Your task to perform on an android device: check storage Image 0: 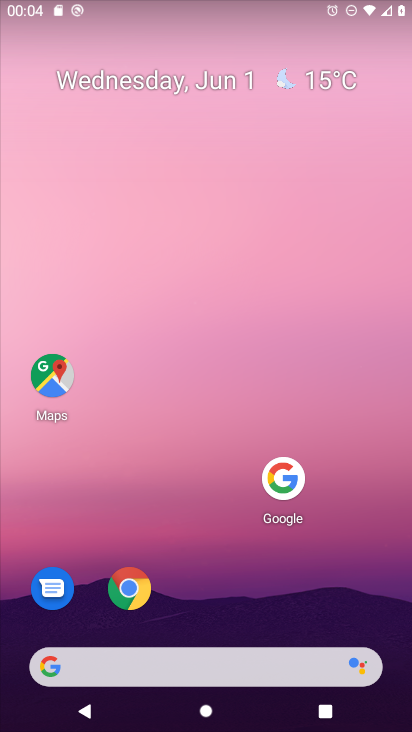
Step 0: press home button
Your task to perform on an android device: check storage Image 1: 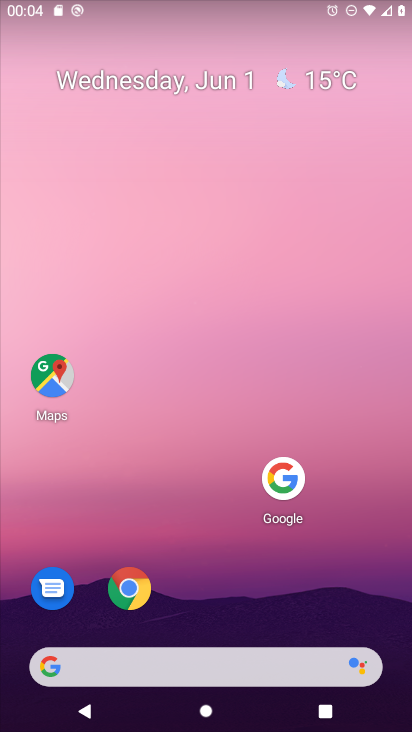
Step 1: drag from (165, 668) to (281, 234)
Your task to perform on an android device: check storage Image 2: 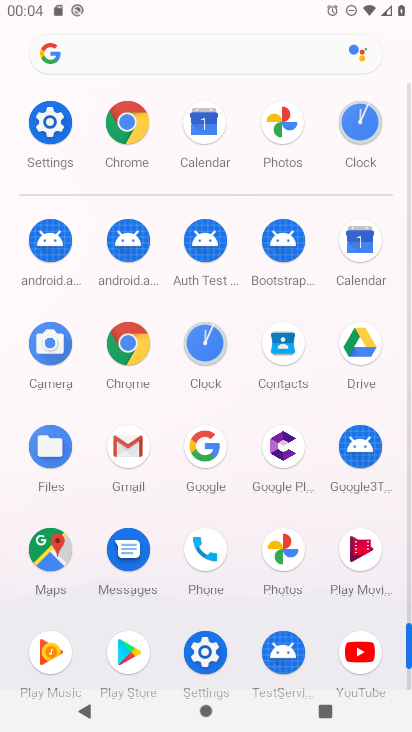
Step 2: click (49, 130)
Your task to perform on an android device: check storage Image 3: 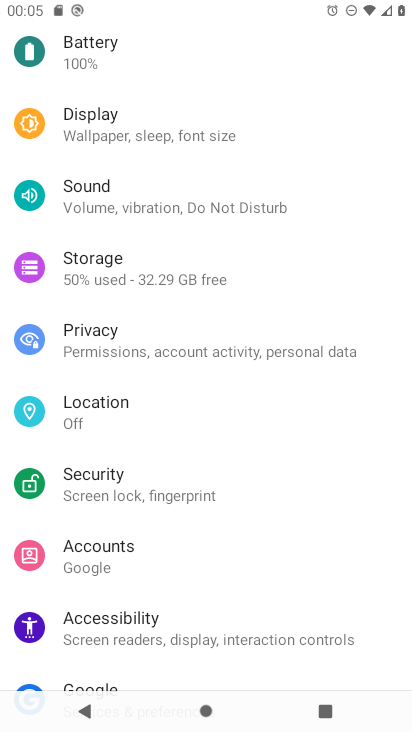
Step 3: click (136, 276)
Your task to perform on an android device: check storage Image 4: 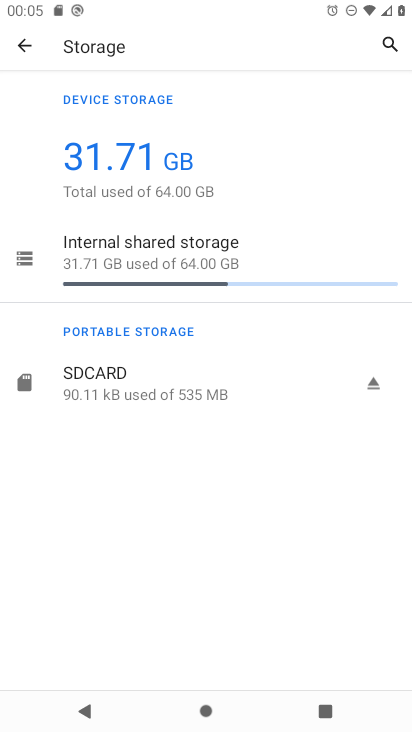
Step 4: task complete